Your task to perform on an android device: Search for hotels in Orlando Image 0: 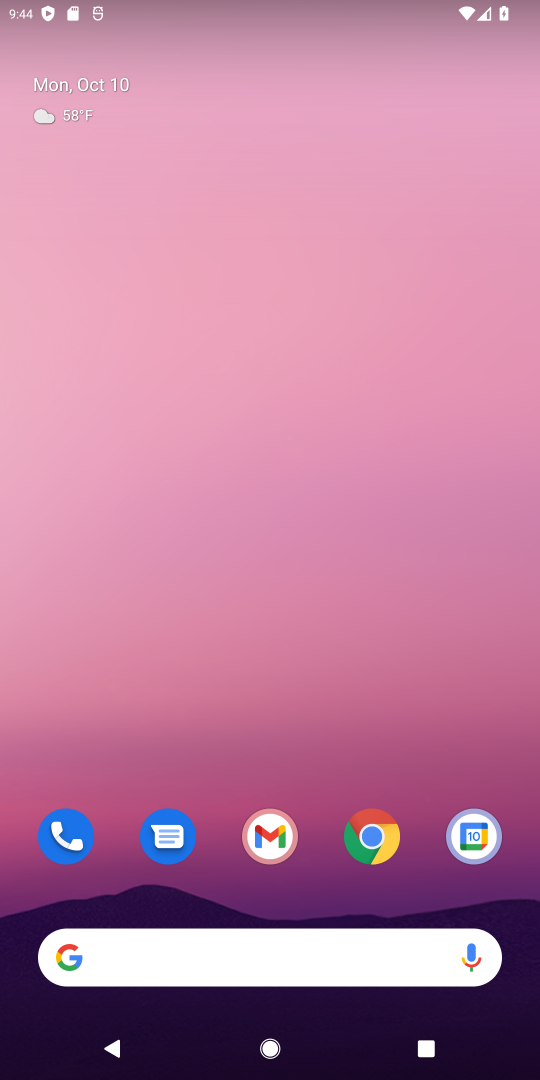
Step 0: drag from (265, 942) to (353, 336)
Your task to perform on an android device: Search for hotels in Orlando Image 1: 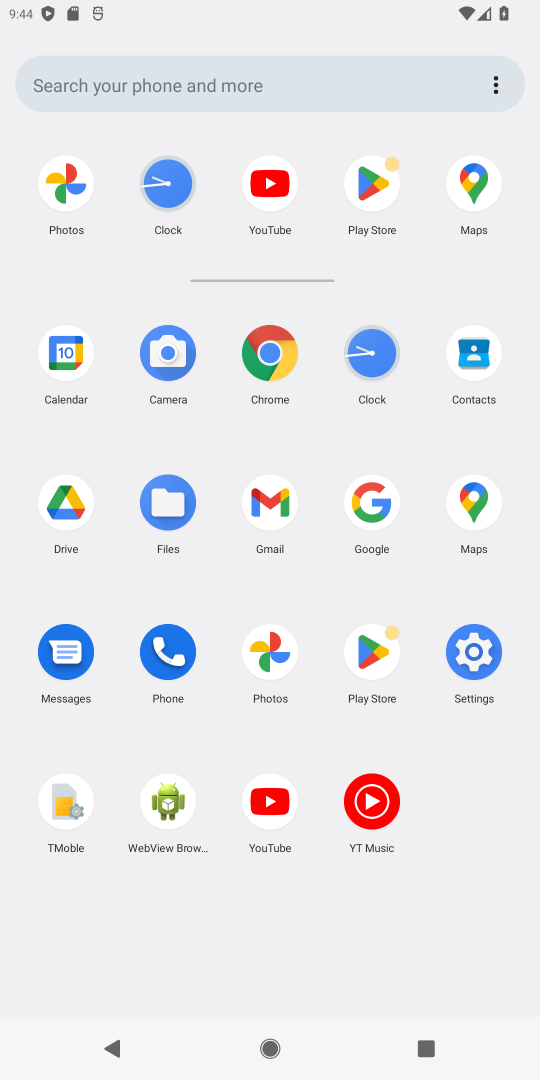
Step 1: click (370, 500)
Your task to perform on an android device: Search for hotels in Orlando Image 2: 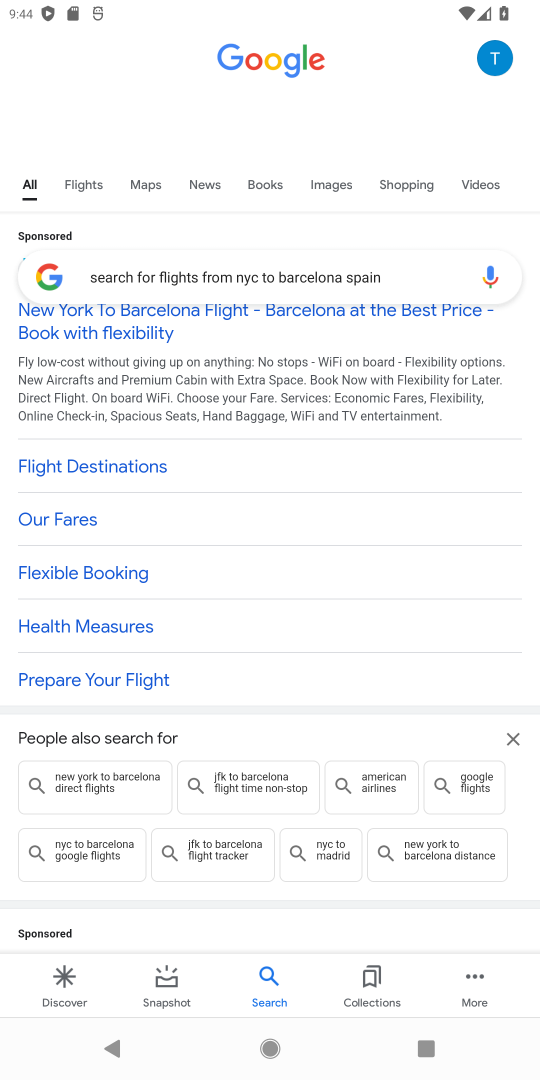
Step 2: click (208, 279)
Your task to perform on an android device: Search for hotels in Orlando Image 3: 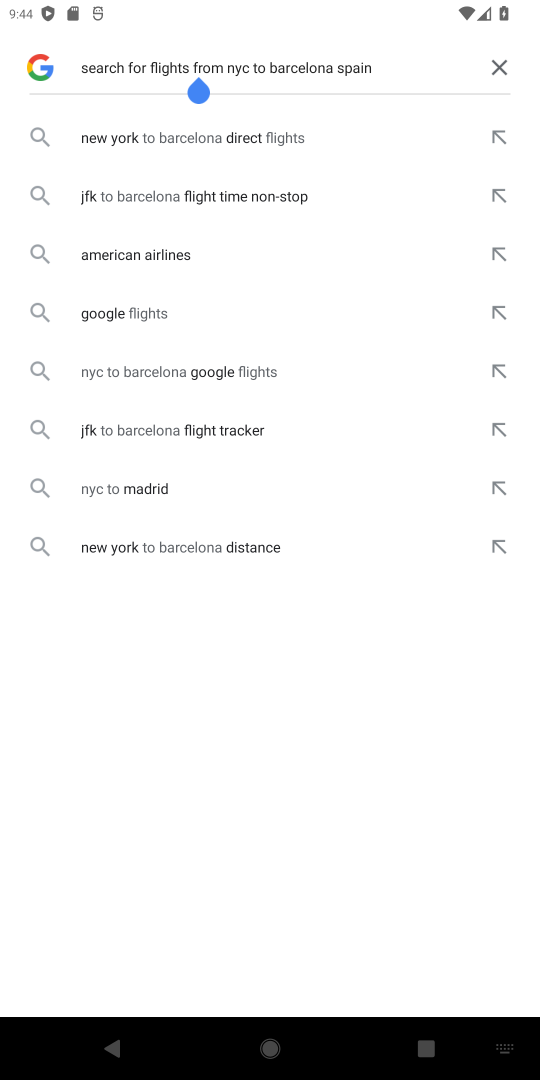
Step 3: click (494, 66)
Your task to perform on an android device: Search for hotels in Orlando Image 4: 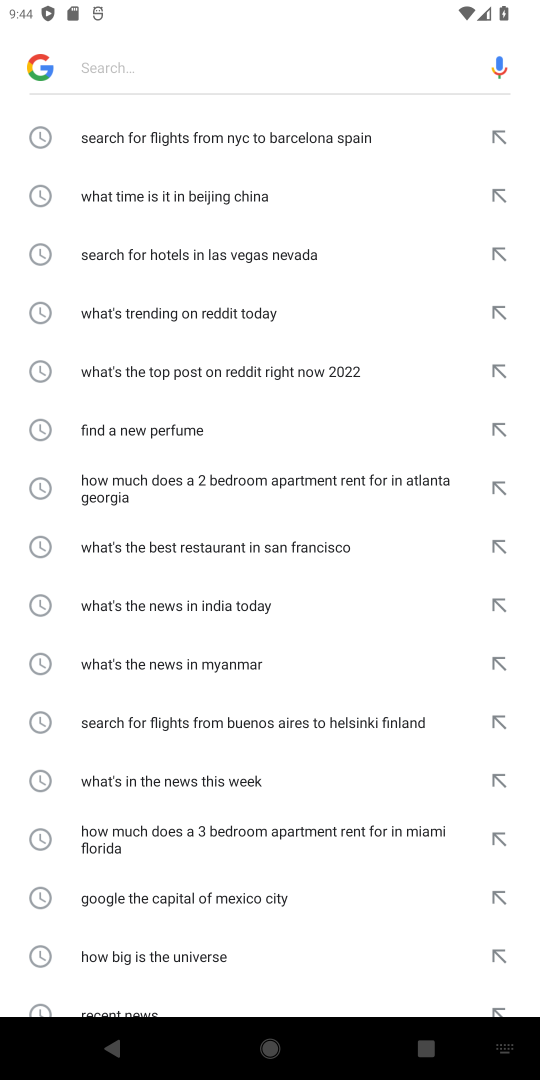
Step 4: type "Search for hotels in Orlando"
Your task to perform on an android device: Search for hotels in Orlando Image 5: 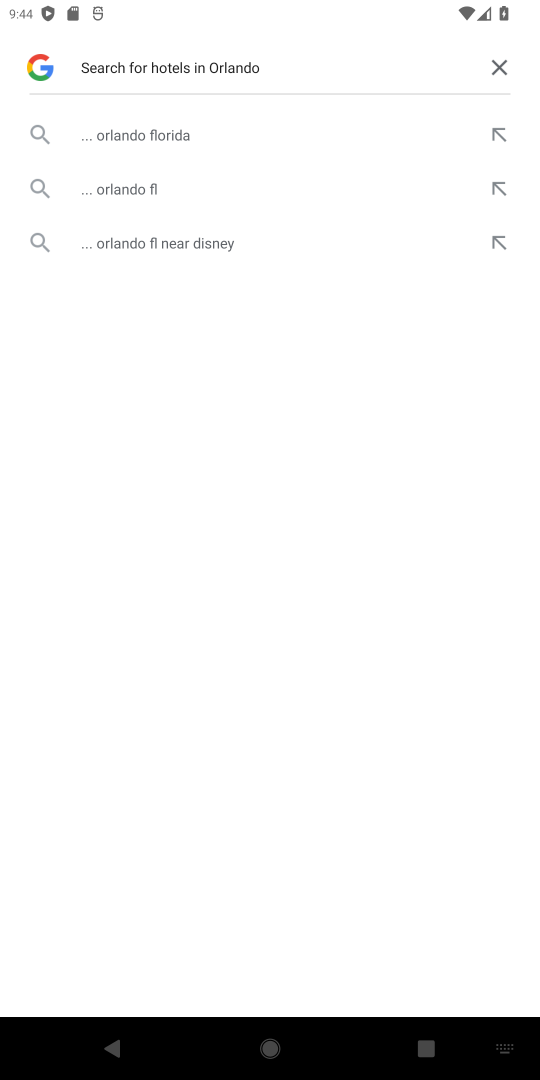
Step 5: click (162, 140)
Your task to perform on an android device: Search for hotels in Orlando Image 6: 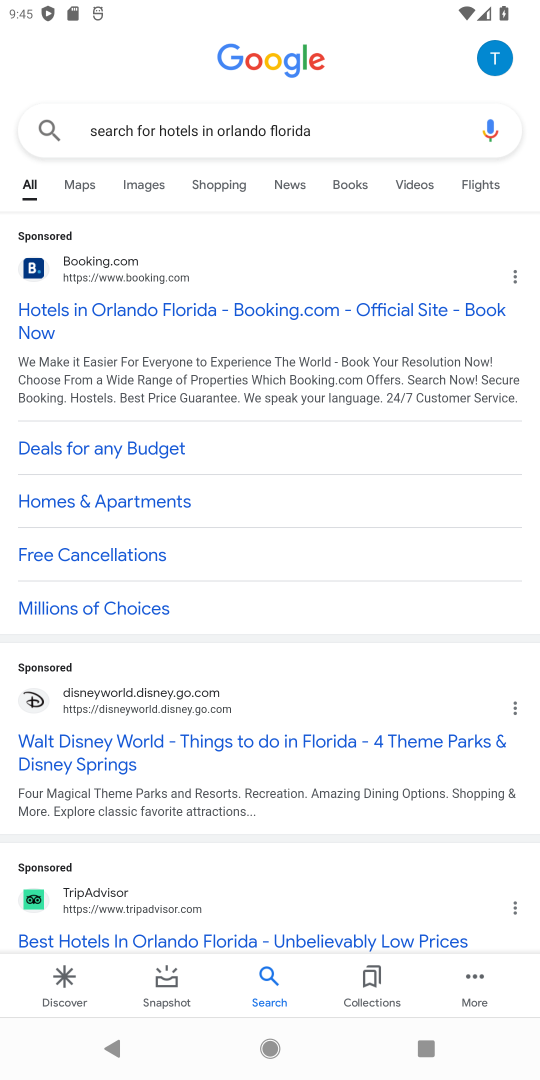
Step 6: click (213, 305)
Your task to perform on an android device: Search for hotels in Orlando Image 7: 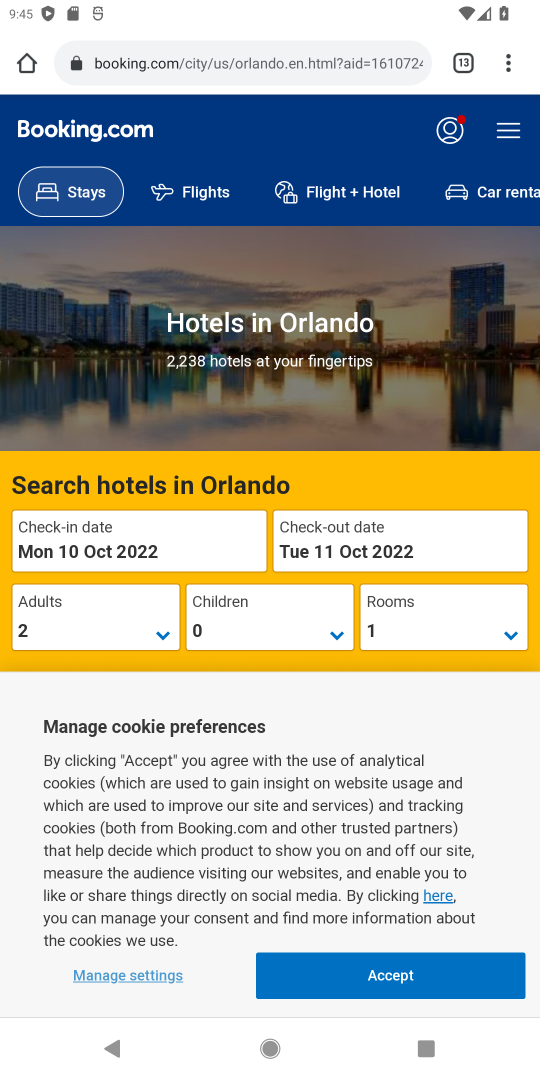
Step 7: task complete